Your task to perform on an android device: turn on wifi Image 0: 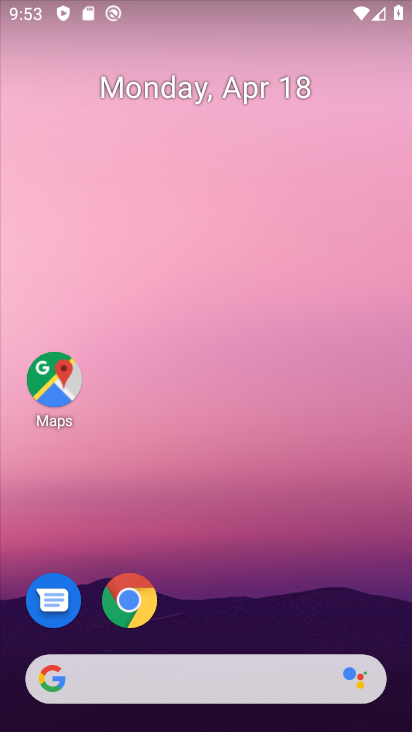
Step 0: drag from (215, 640) to (133, 51)
Your task to perform on an android device: turn on wifi Image 1: 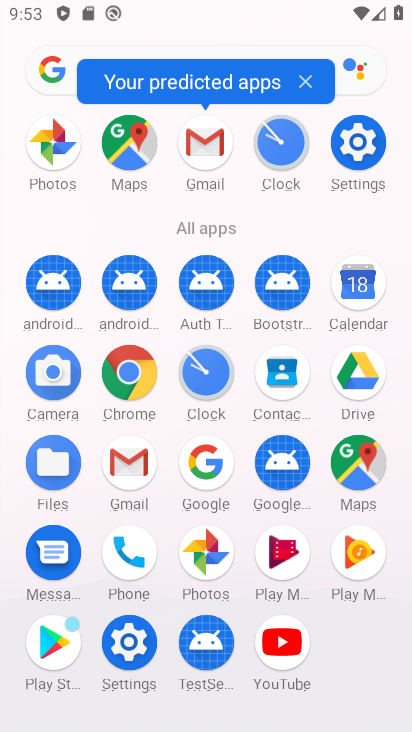
Step 1: click (359, 133)
Your task to perform on an android device: turn on wifi Image 2: 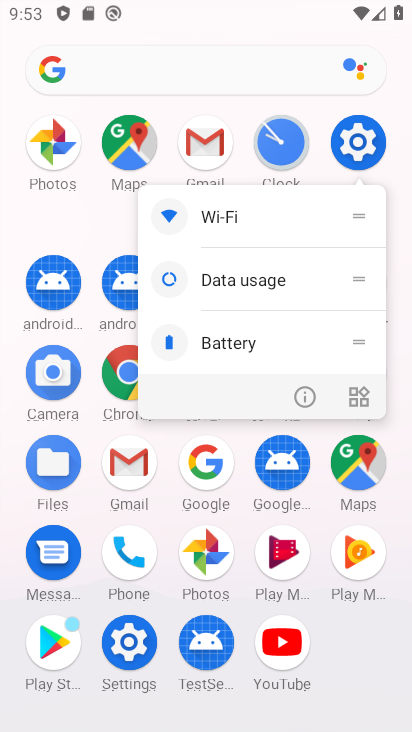
Step 2: click (357, 140)
Your task to perform on an android device: turn on wifi Image 3: 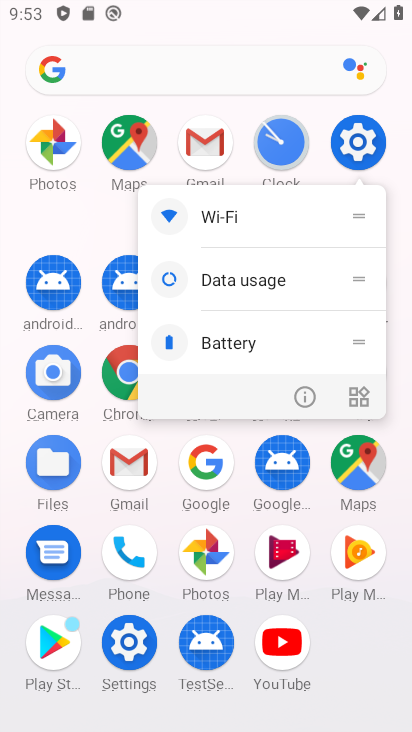
Step 3: click (357, 140)
Your task to perform on an android device: turn on wifi Image 4: 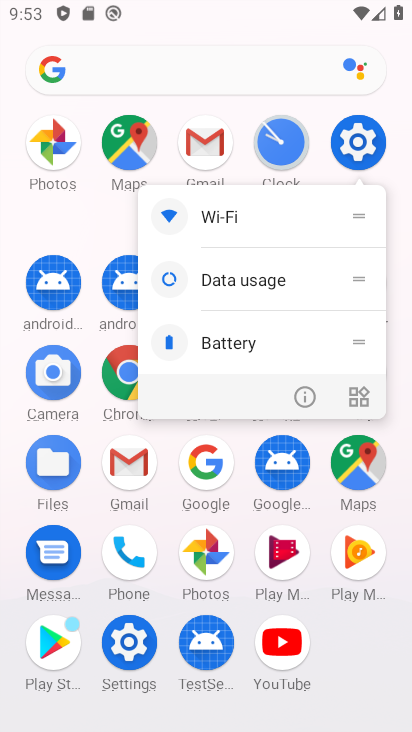
Step 4: click (357, 140)
Your task to perform on an android device: turn on wifi Image 5: 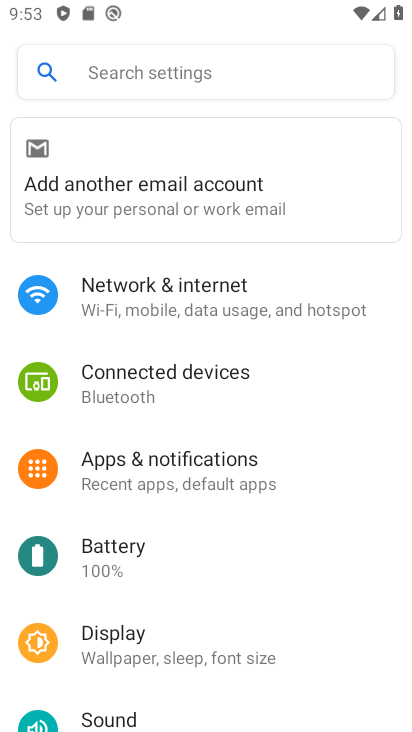
Step 5: click (133, 292)
Your task to perform on an android device: turn on wifi Image 6: 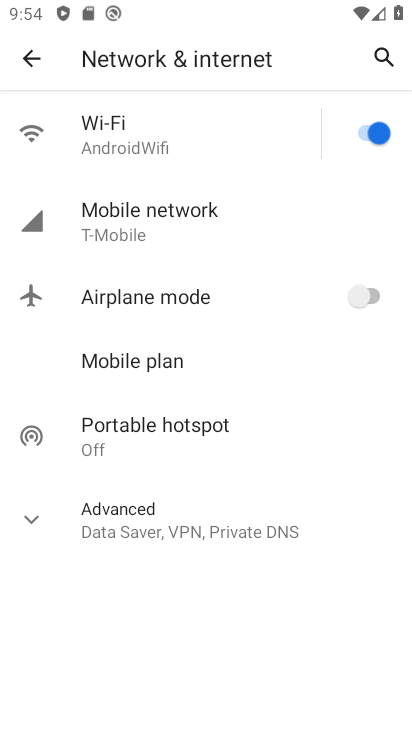
Step 6: click (184, 149)
Your task to perform on an android device: turn on wifi Image 7: 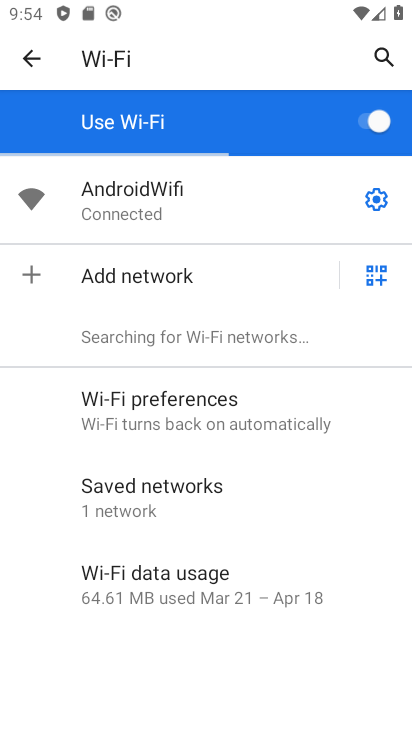
Step 7: task complete